Your task to perform on an android device: What's the weather? Image 0: 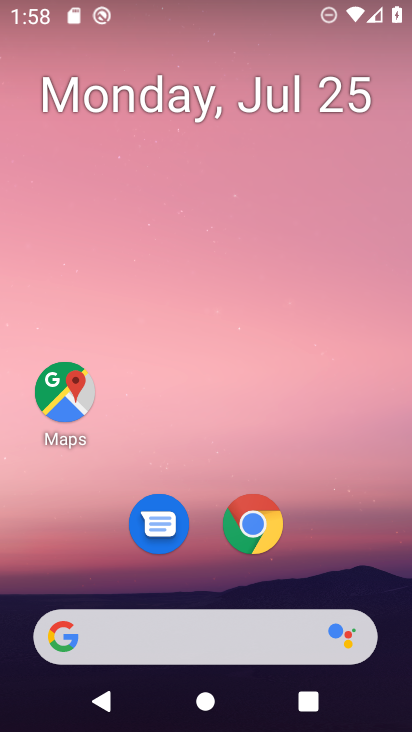
Step 0: press home button
Your task to perform on an android device: What's the weather? Image 1: 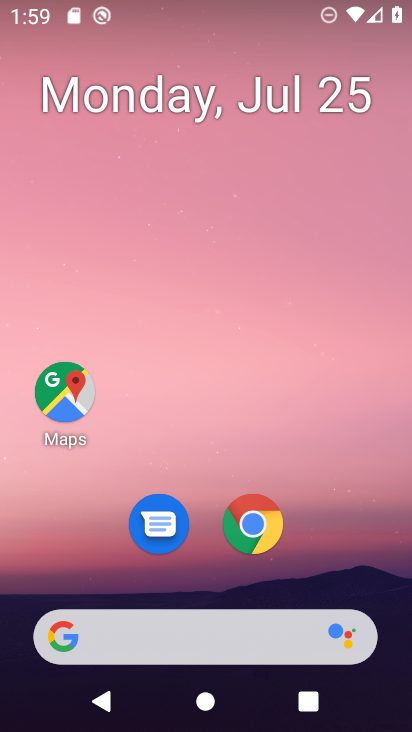
Step 1: click (143, 631)
Your task to perform on an android device: What's the weather? Image 2: 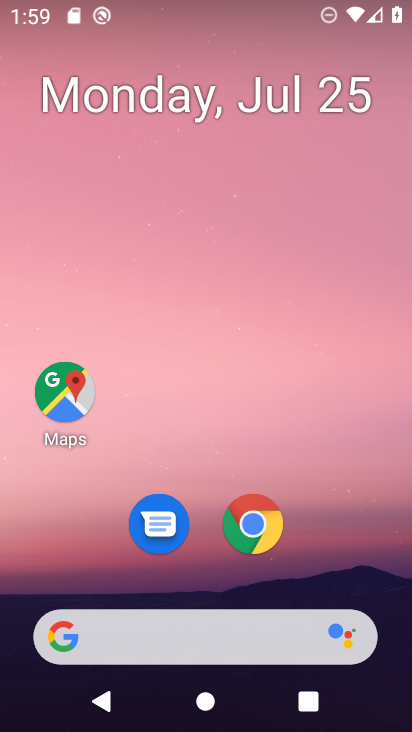
Step 2: click (151, 626)
Your task to perform on an android device: What's the weather? Image 3: 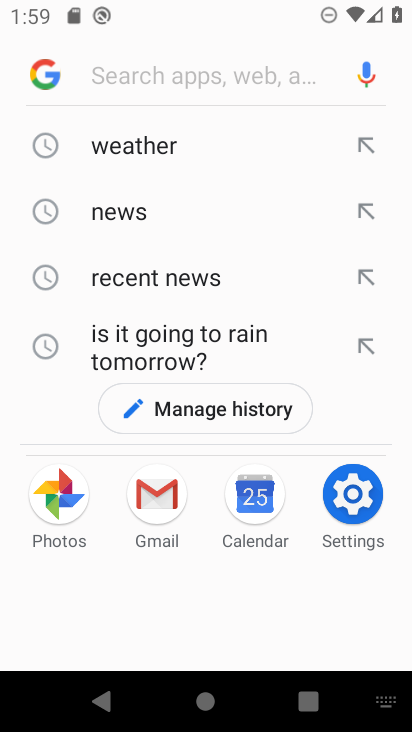
Step 3: click (138, 142)
Your task to perform on an android device: What's the weather? Image 4: 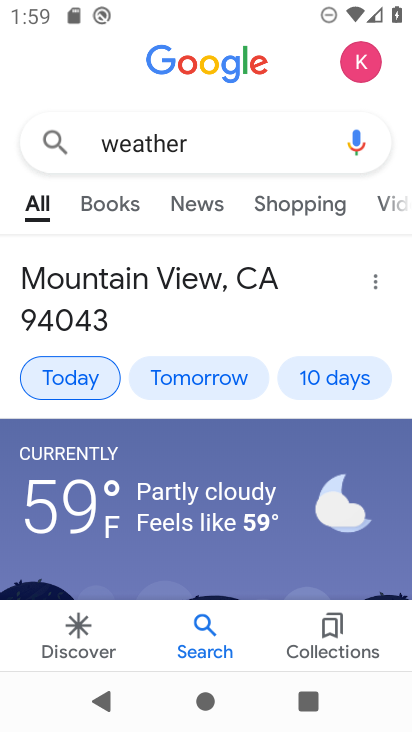
Step 4: task complete